Your task to perform on an android device: turn on the 12-hour format for clock Image 0: 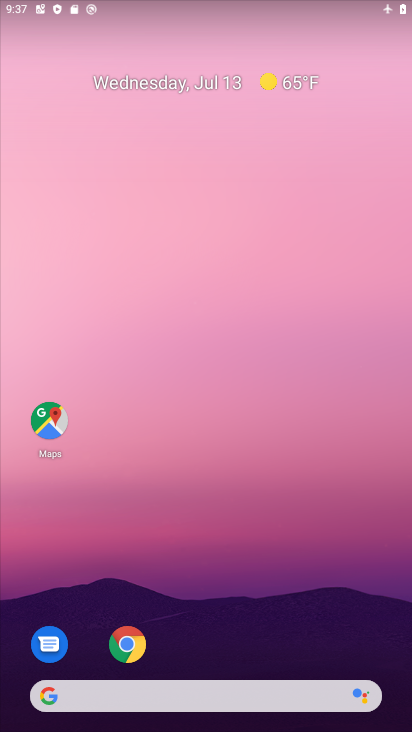
Step 0: drag from (174, 562) to (174, 32)
Your task to perform on an android device: turn on the 12-hour format for clock Image 1: 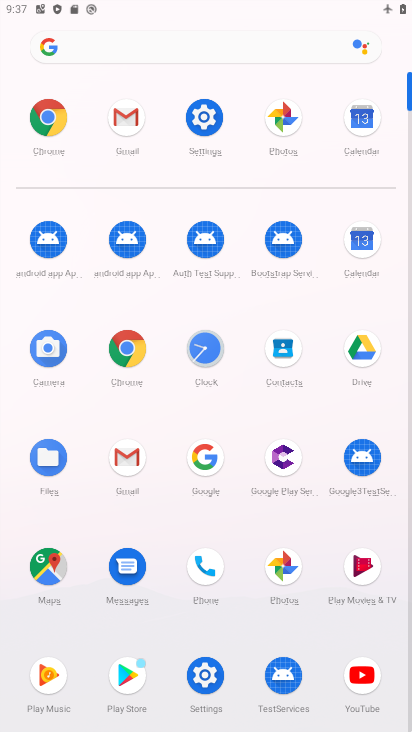
Step 1: click (194, 348)
Your task to perform on an android device: turn on the 12-hour format for clock Image 2: 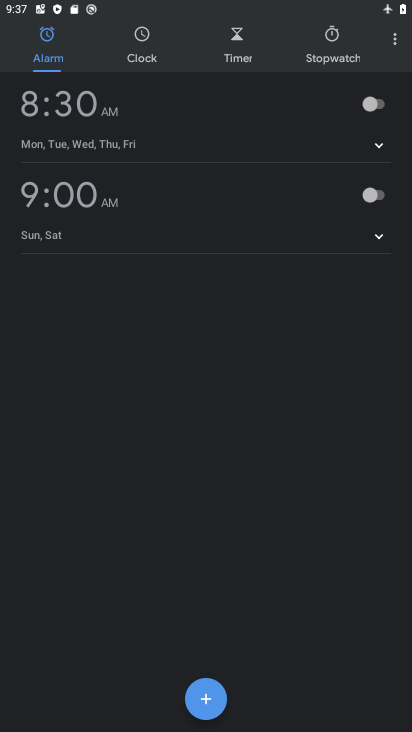
Step 2: click (393, 43)
Your task to perform on an android device: turn on the 12-hour format for clock Image 3: 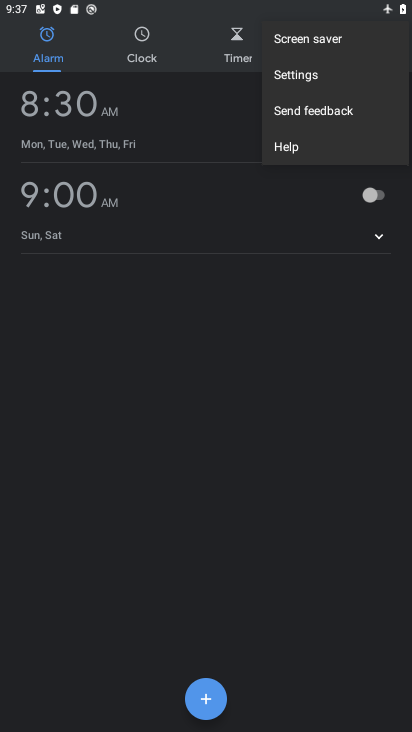
Step 3: click (307, 75)
Your task to perform on an android device: turn on the 12-hour format for clock Image 4: 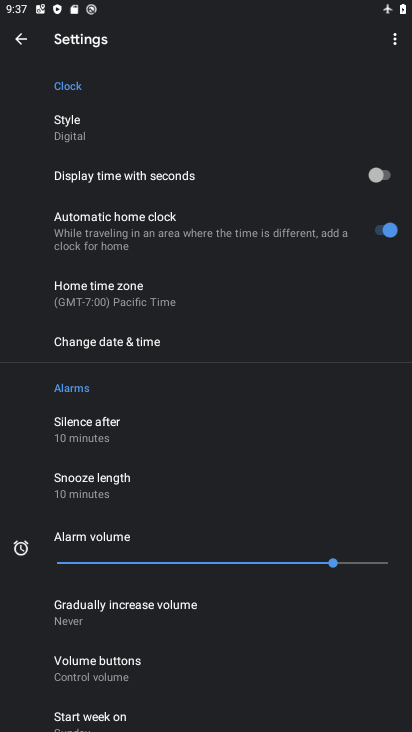
Step 4: click (131, 350)
Your task to perform on an android device: turn on the 12-hour format for clock Image 5: 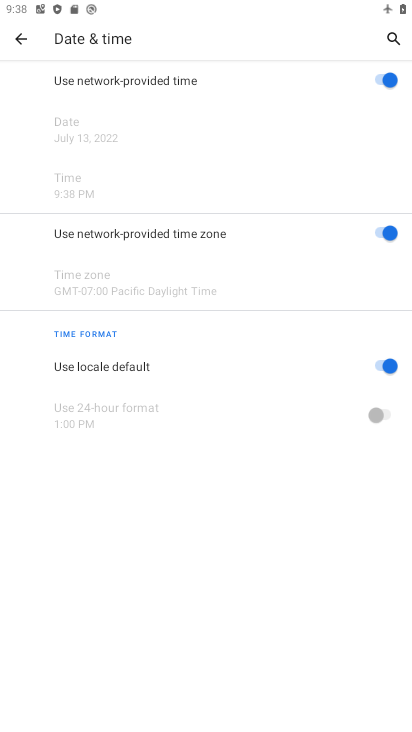
Step 5: task complete